Your task to perform on an android device: Turn off the flashlight Image 0: 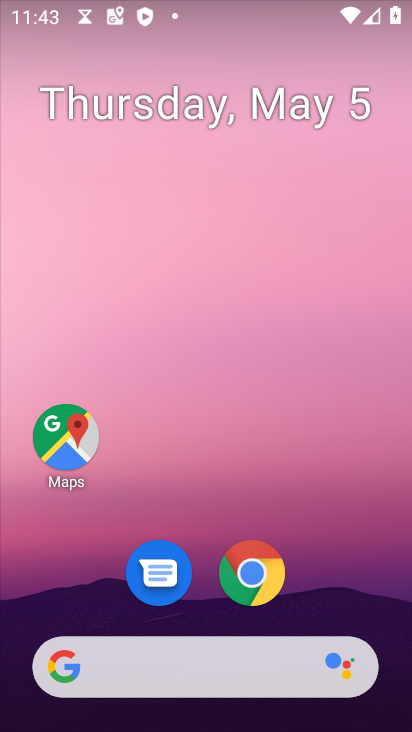
Step 0: drag from (341, 588) to (337, 265)
Your task to perform on an android device: Turn off the flashlight Image 1: 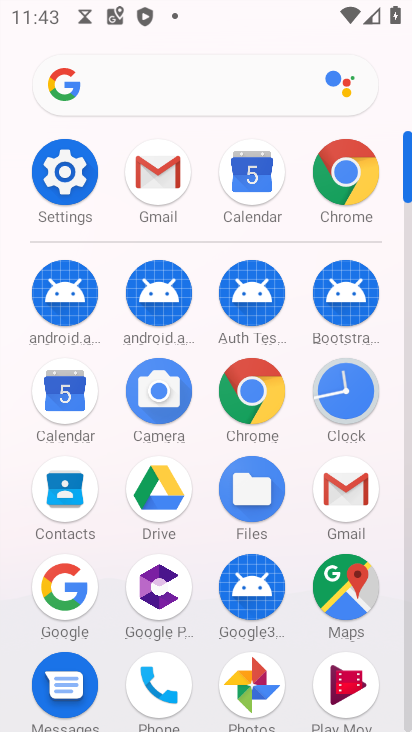
Step 1: click (57, 176)
Your task to perform on an android device: Turn off the flashlight Image 2: 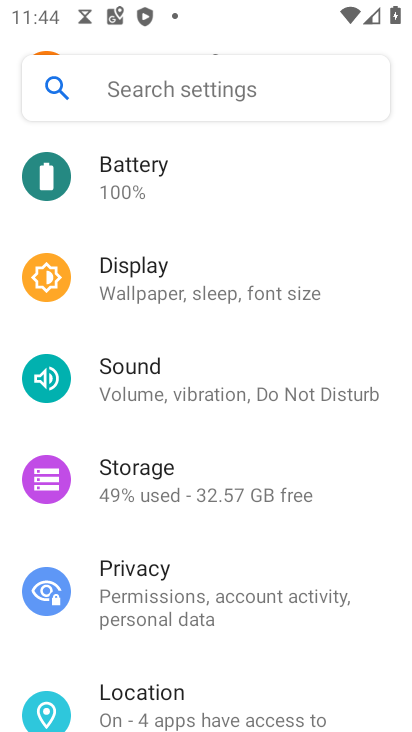
Step 2: task complete